Your task to perform on an android device: turn off sleep mode Image 0: 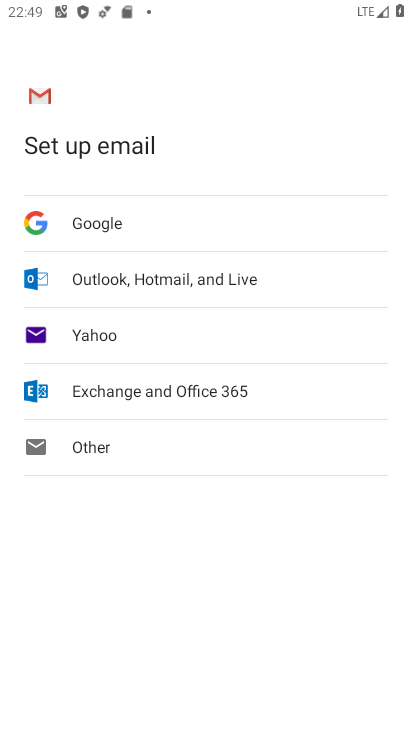
Step 0: press home button
Your task to perform on an android device: turn off sleep mode Image 1: 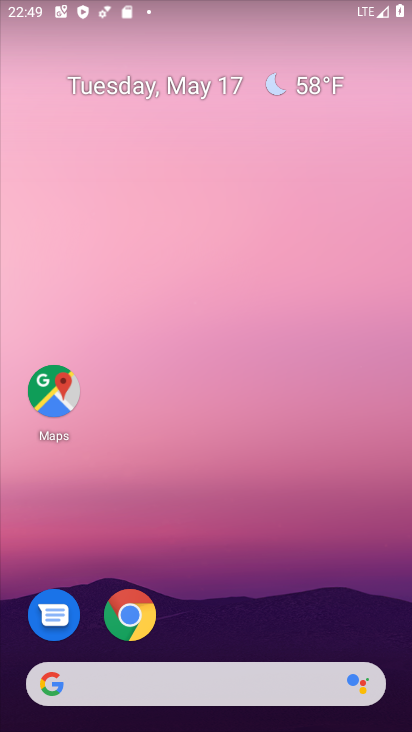
Step 1: drag from (195, 620) to (138, 129)
Your task to perform on an android device: turn off sleep mode Image 2: 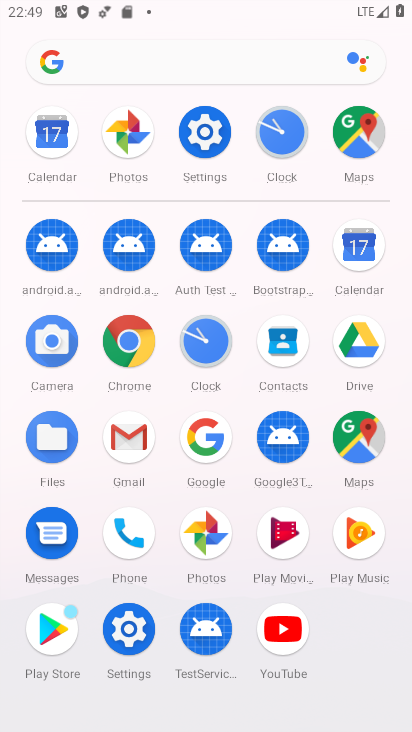
Step 2: click (195, 152)
Your task to perform on an android device: turn off sleep mode Image 3: 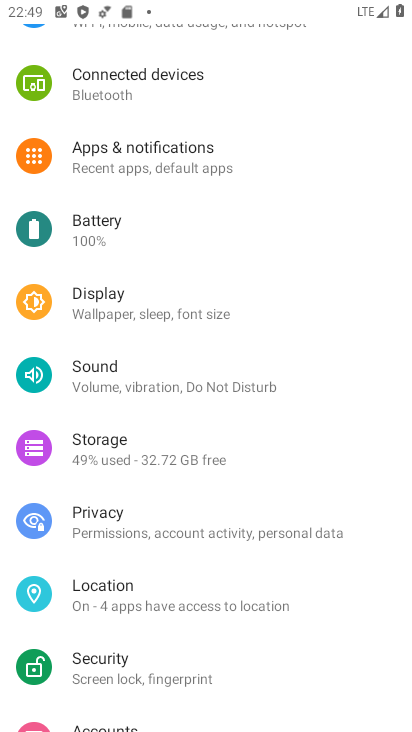
Step 3: click (130, 307)
Your task to perform on an android device: turn off sleep mode Image 4: 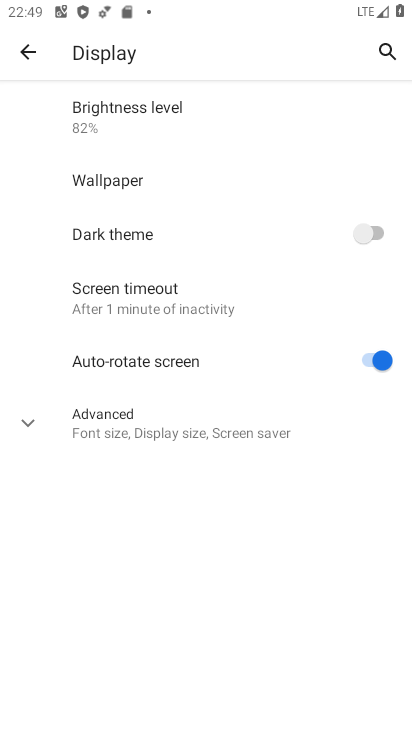
Step 4: click (166, 311)
Your task to perform on an android device: turn off sleep mode Image 5: 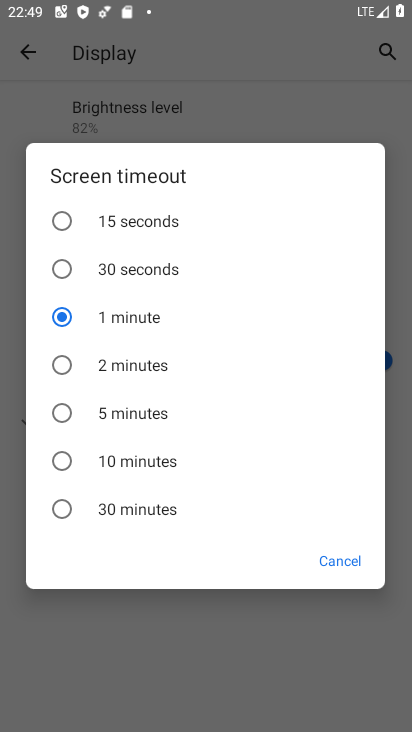
Step 5: click (132, 410)
Your task to perform on an android device: turn off sleep mode Image 6: 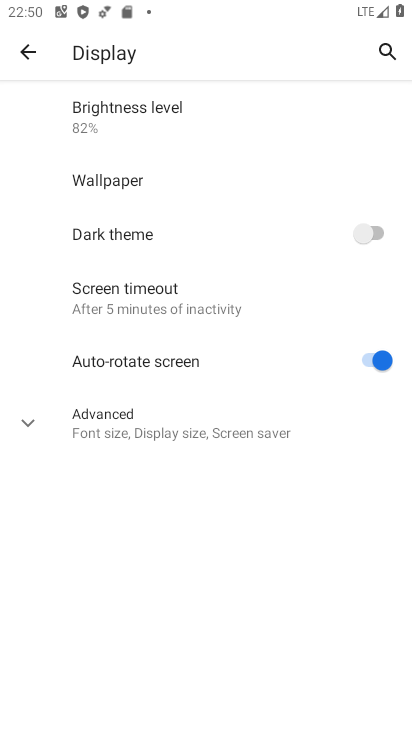
Step 6: task complete